Your task to perform on an android device: find which apps use the phone's location Image 0: 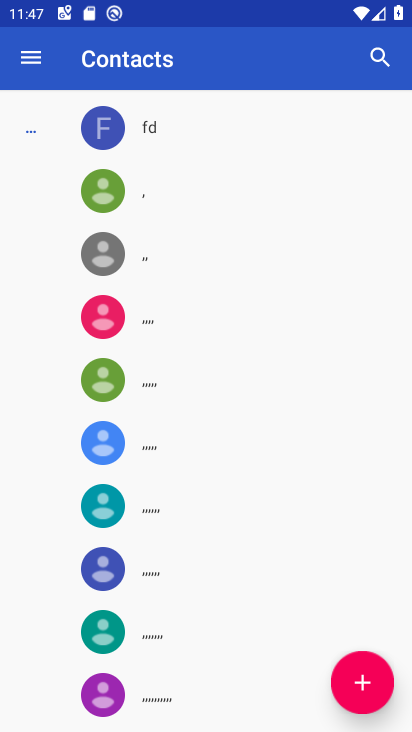
Step 0: press home button
Your task to perform on an android device: find which apps use the phone's location Image 1: 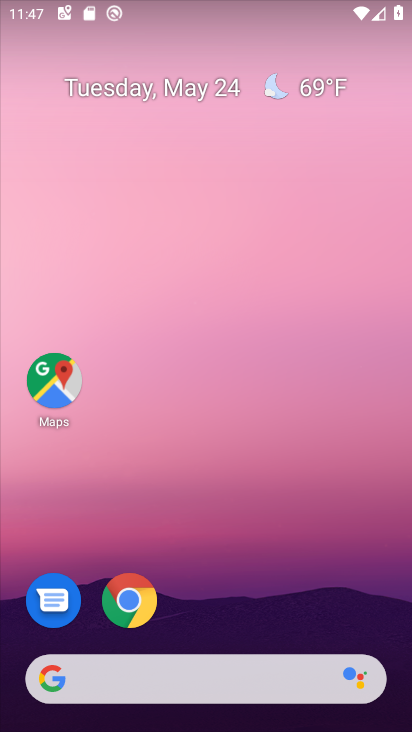
Step 1: drag from (374, 620) to (380, 178)
Your task to perform on an android device: find which apps use the phone's location Image 2: 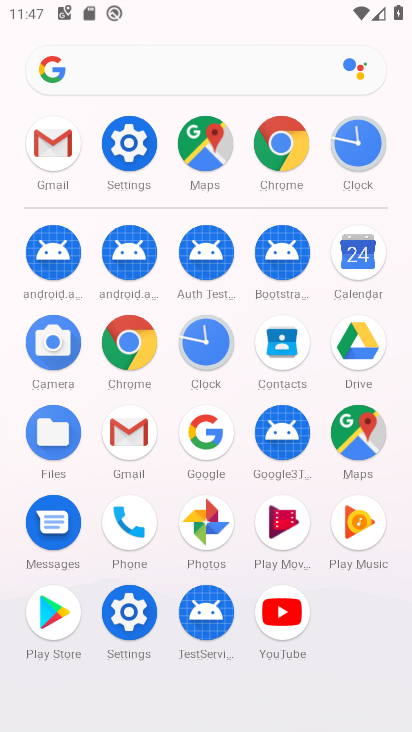
Step 2: click (131, 623)
Your task to perform on an android device: find which apps use the phone's location Image 3: 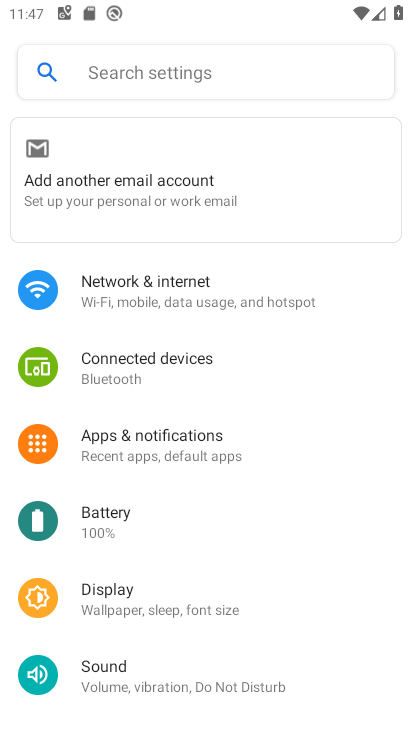
Step 3: drag from (344, 598) to (352, 520)
Your task to perform on an android device: find which apps use the phone's location Image 4: 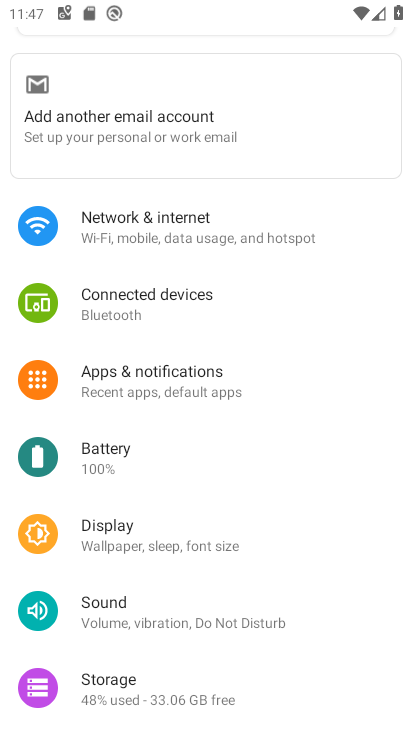
Step 4: drag from (358, 632) to (357, 540)
Your task to perform on an android device: find which apps use the phone's location Image 5: 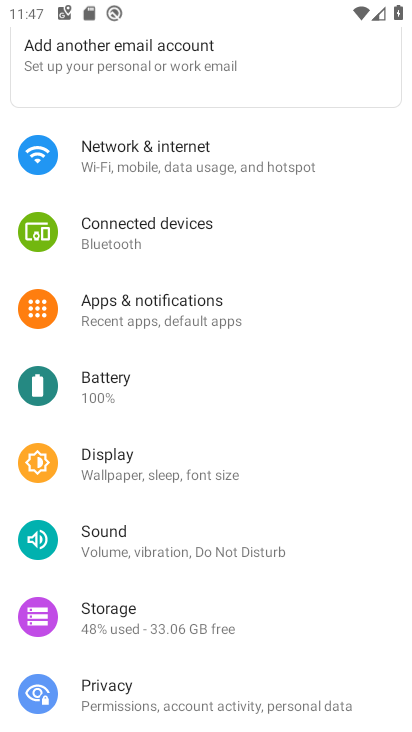
Step 5: drag from (353, 632) to (344, 542)
Your task to perform on an android device: find which apps use the phone's location Image 6: 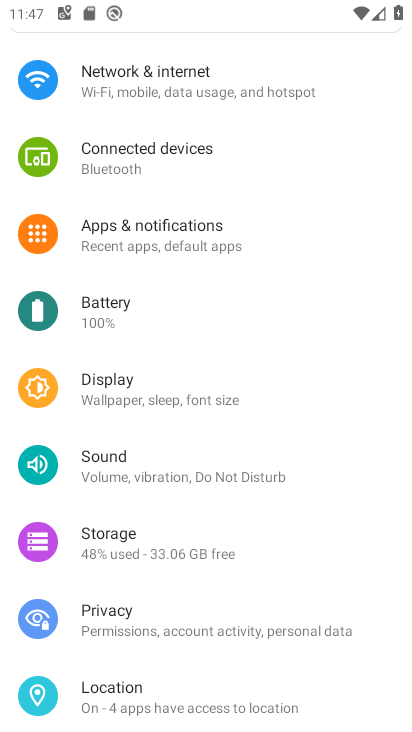
Step 6: drag from (366, 655) to (363, 574)
Your task to perform on an android device: find which apps use the phone's location Image 7: 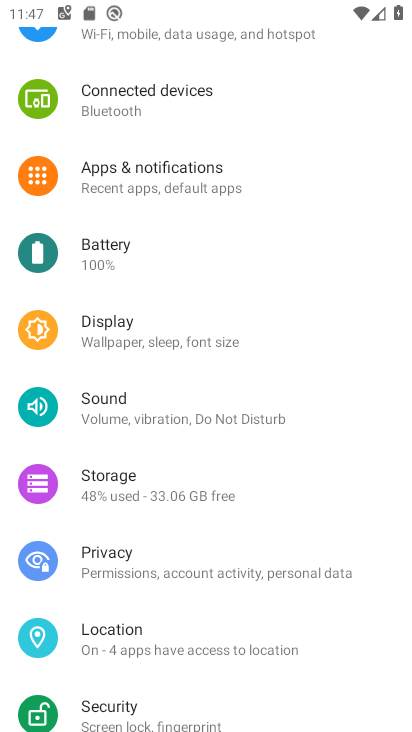
Step 7: drag from (351, 650) to (362, 562)
Your task to perform on an android device: find which apps use the phone's location Image 8: 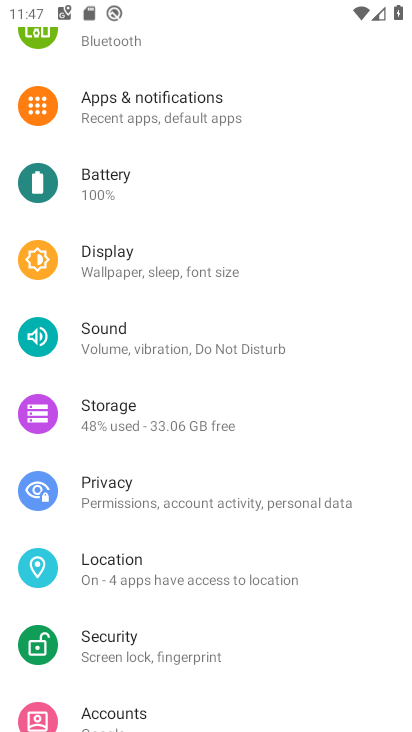
Step 8: drag from (366, 620) to (377, 519)
Your task to perform on an android device: find which apps use the phone's location Image 9: 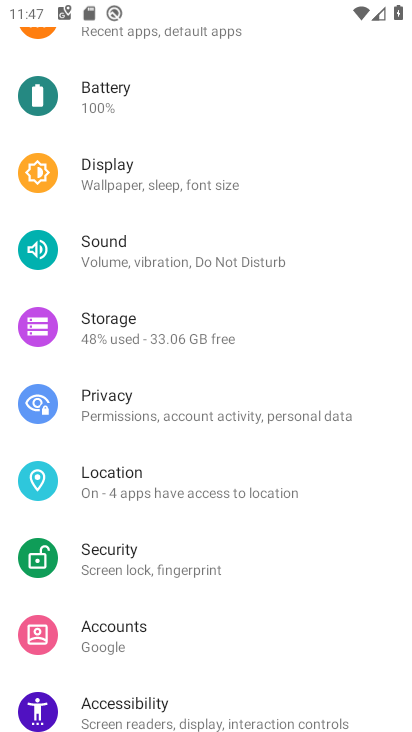
Step 9: click (280, 487)
Your task to perform on an android device: find which apps use the phone's location Image 10: 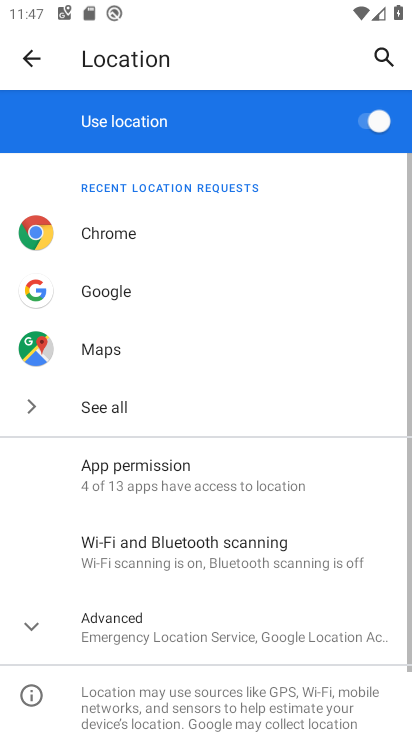
Step 10: drag from (286, 558) to (301, 410)
Your task to perform on an android device: find which apps use the phone's location Image 11: 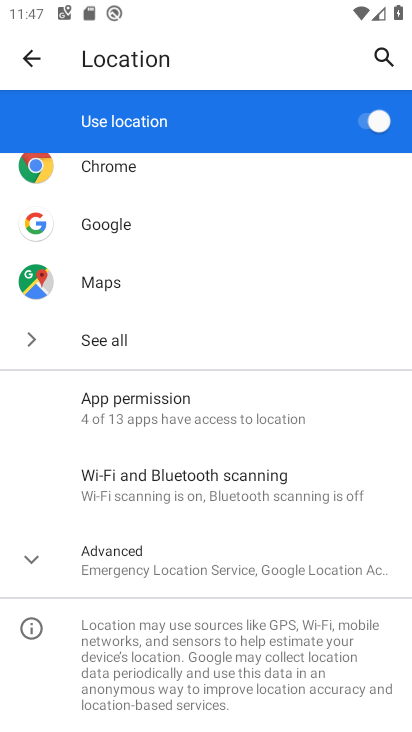
Step 11: click (301, 410)
Your task to perform on an android device: find which apps use the phone's location Image 12: 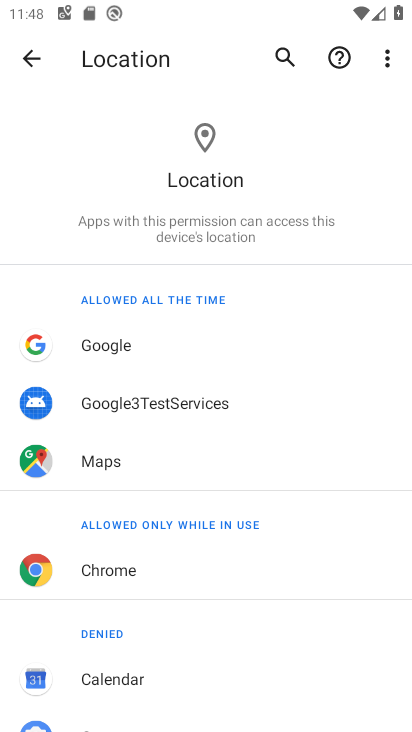
Step 12: drag from (318, 523) to (323, 410)
Your task to perform on an android device: find which apps use the phone's location Image 13: 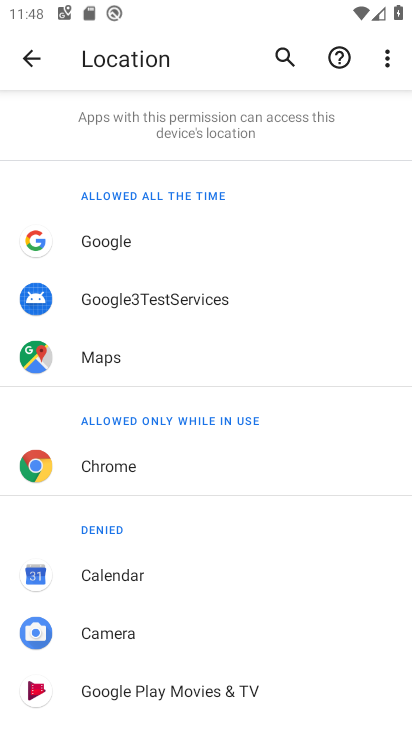
Step 13: drag from (303, 560) to (309, 462)
Your task to perform on an android device: find which apps use the phone's location Image 14: 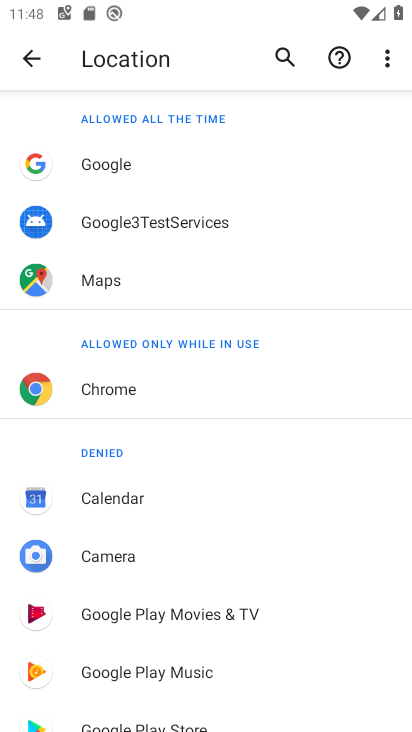
Step 14: drag from (293, 582) to (297, 474)
Your task to perform on an android device: find which apps use the phone's location Image 15: 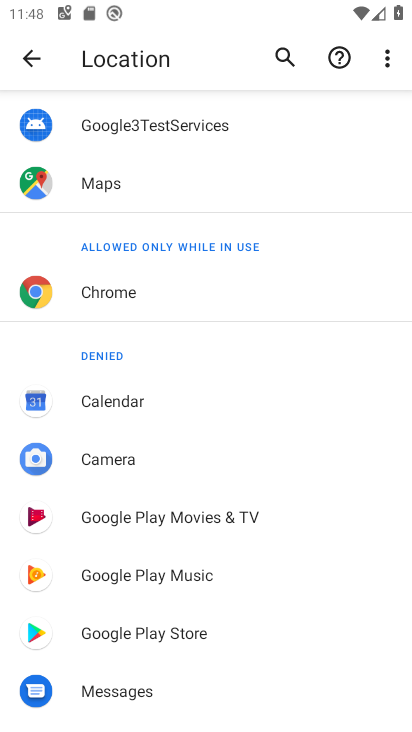
Step 15: drag from (291, 594) to (294, 507)
Your task to perform on an android device: find which apps use the phone's location Image 16: 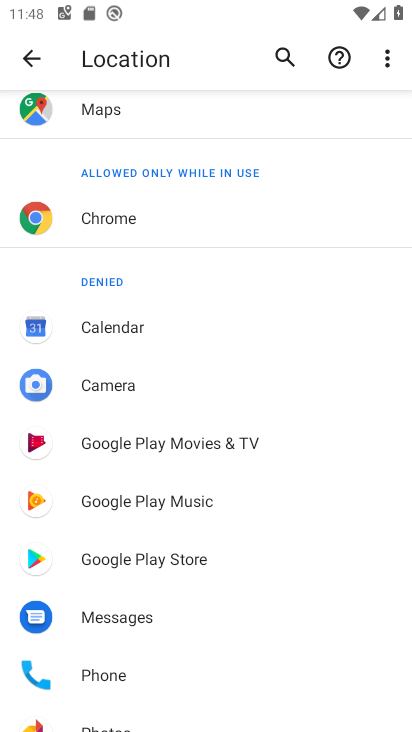
Step 16: drag from (276, 605) to (277, 511)
Your task to perform on an android device: find which apps use the phone's location Image 17: 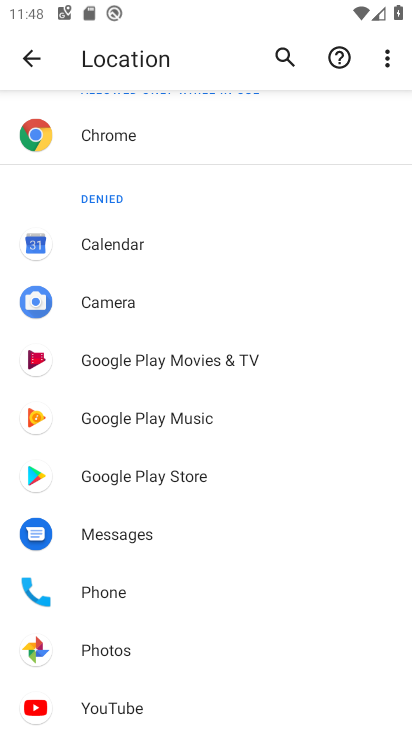
Step 17: drag from (266, 612) to (275, 494)
Your task to perform on an android device: find which apps use the phone's location Image 18: 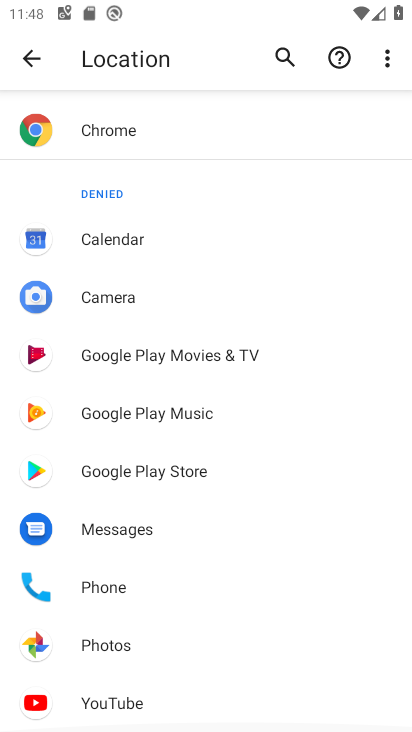
Step 18: click (153, 656)
Your task to perform on an android device: find which apps use the phone's location Image 19: 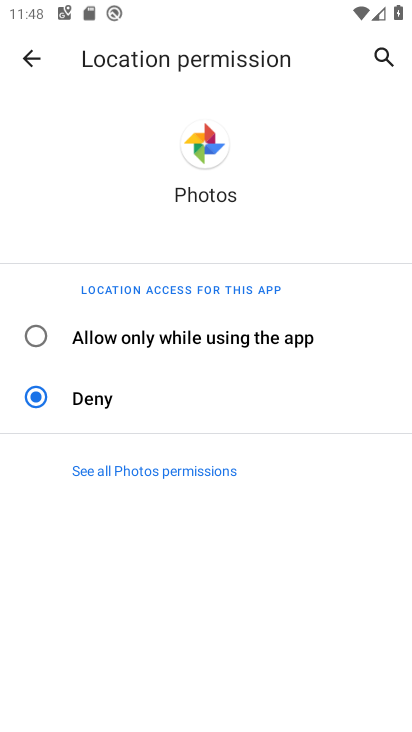
Step 19: click (234, 342)
Your task to perform on an android device: find which apps use the phone's location Image 20: 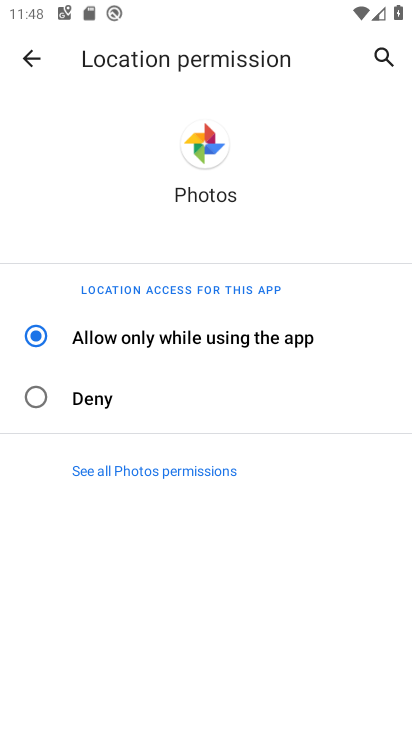
Step 20: task complete